Your task to perform on an android device: install app "Venmo" Image 0: 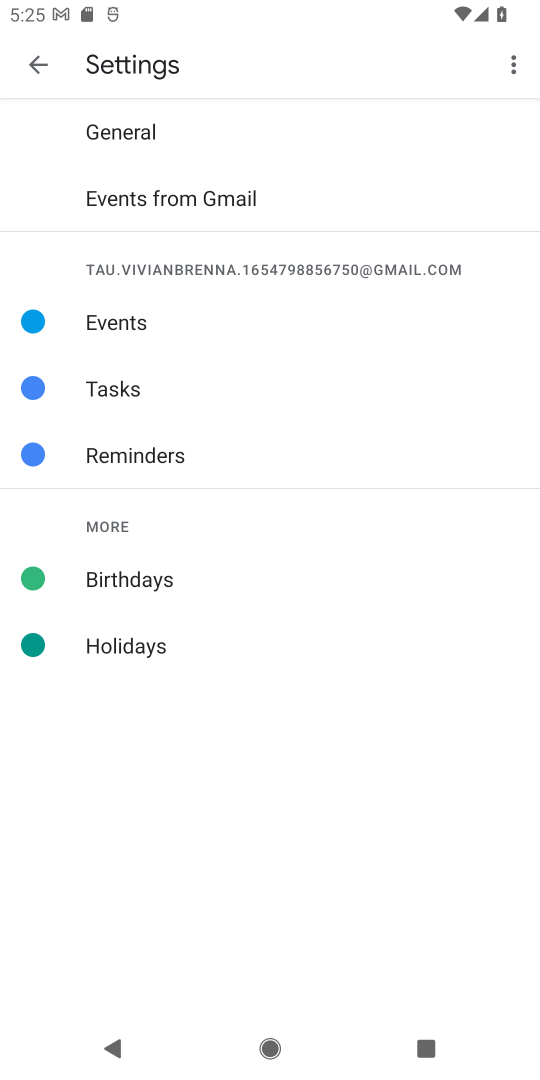
Step 0: press home button
Your task to perform on an android device: install app "Venmo" Image 1: 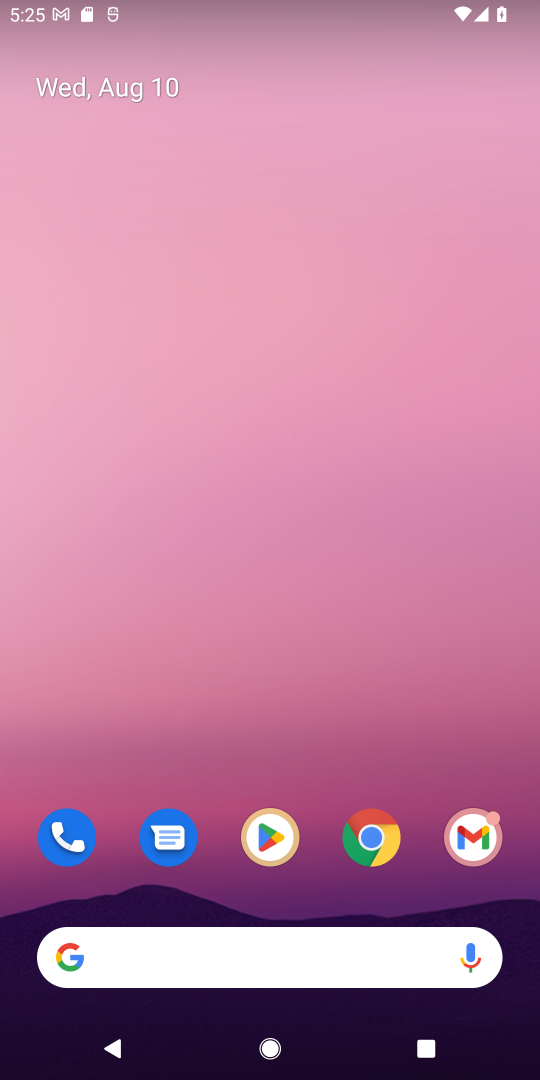
Step 1: click (279, 828)
Your task to perform on an android device: install app "Venmo" Image 2: 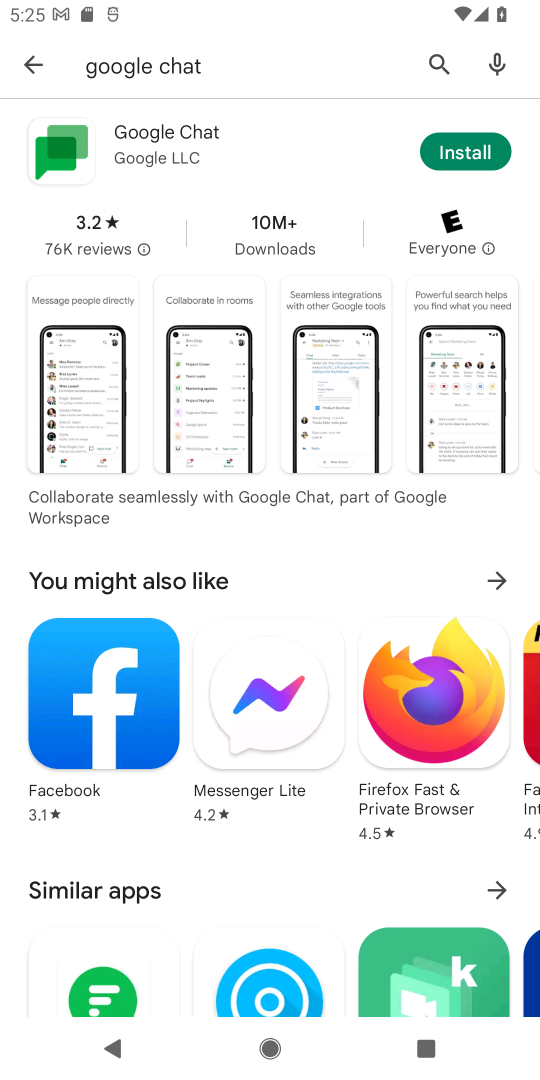
Step 2: click (440, 54)
Your task to perform on an android device: install app "Venmo" Image 3: 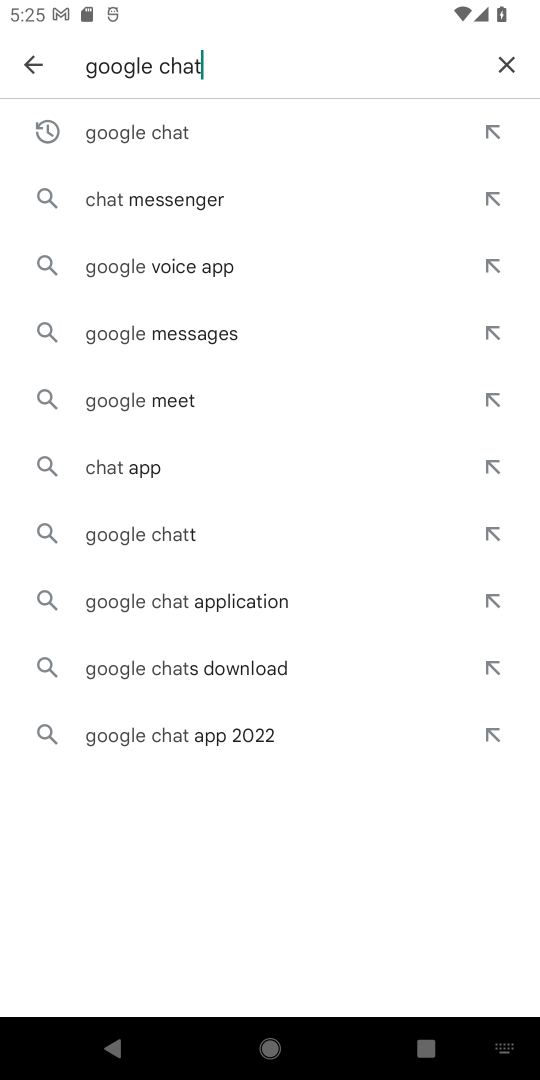
Step 3: click (503, 64)
Your task to perform on an android device: install app "Venmo" Image 4: 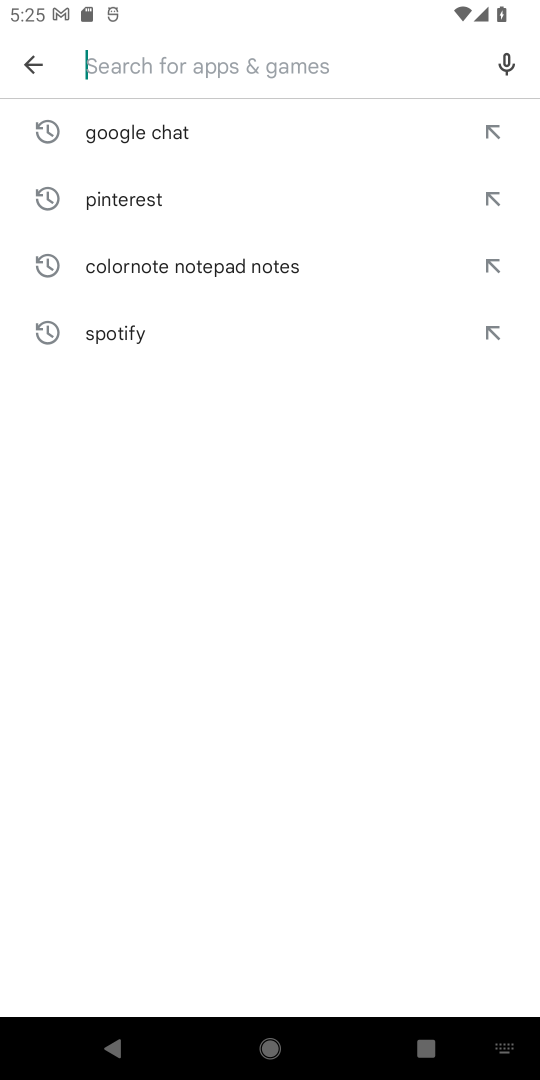
Step 4: type "Venmo"
Your task to perform on an android device: install app "Venmo" Image 5: 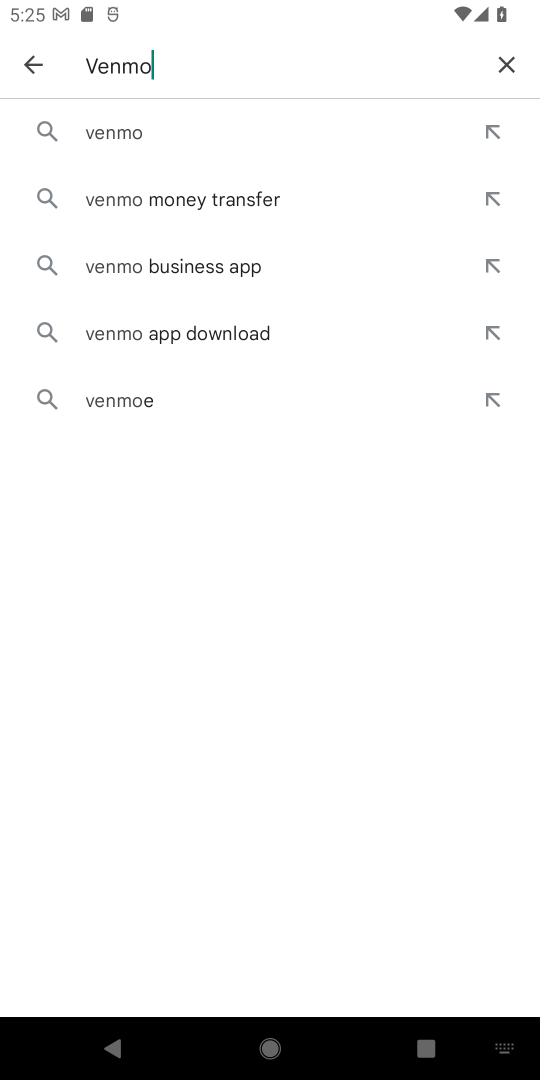
Step 5: click (118, 138)
Your task to perform on an android device: install app "Venmo" Image 6: 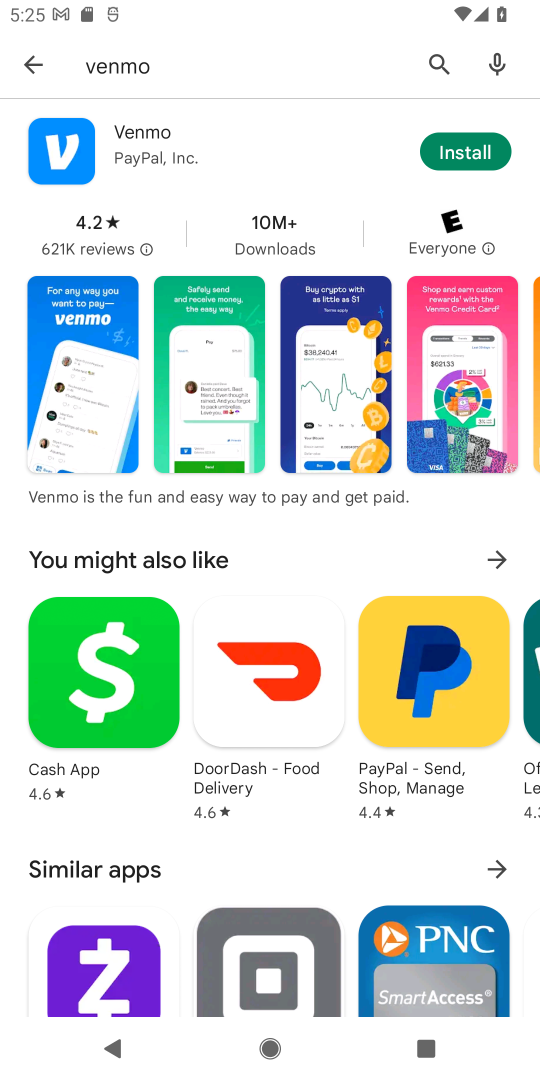
Step 6: click (458, 154)
Your task to perform on an android device: install app "Venmo" Image 7: 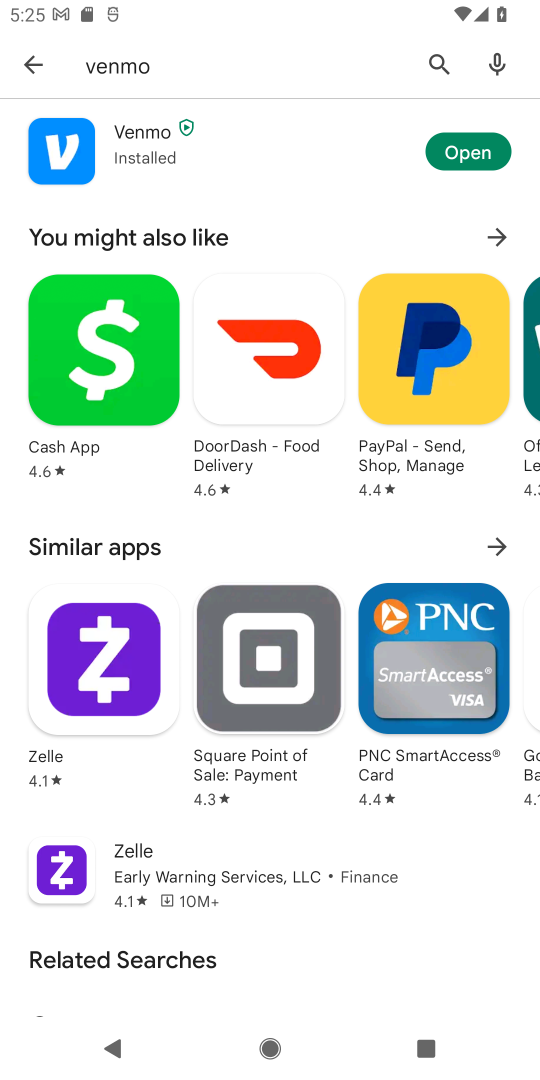
Step 7: task complete